Your task to perform on an android device: open a new tab in the chrome app Image 0: 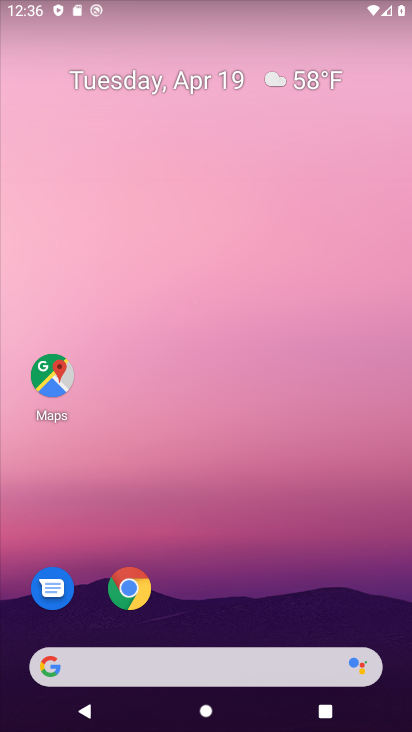
Step 0: drag from (208, 610) to (162, 164)
Your task to perform on an android device: open a new tab in the chrome app Image 1: 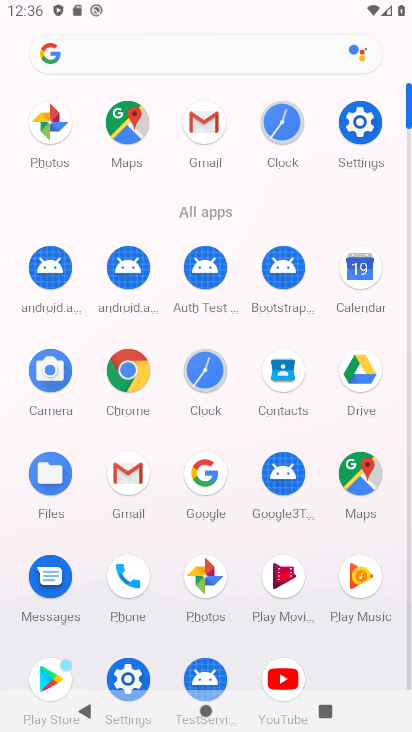
Step 1: click (124, 372)
Your task to perform on an android device: open a new tab in the chrome app Image 2: 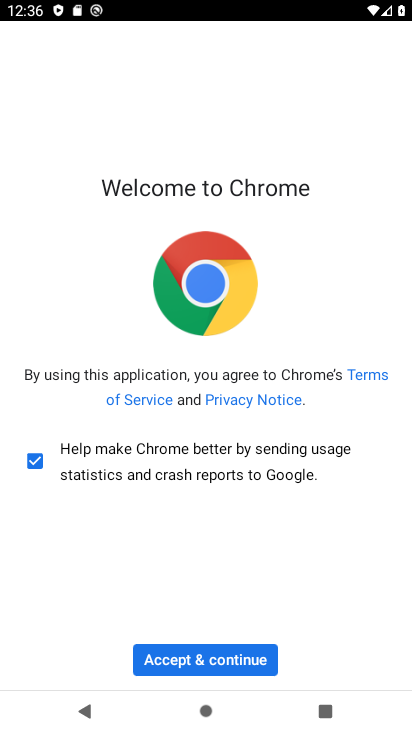
Step 2: click (196, 668)
Your task to perform on an android device: open a new tab in the chrome app Image 3: 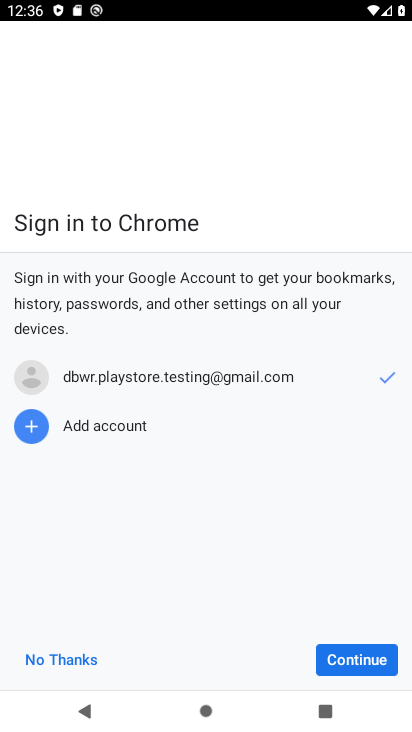
Step 3: click (348, 653)
Your task to perform on an android device: open a new tab in the chrome app Image 4: 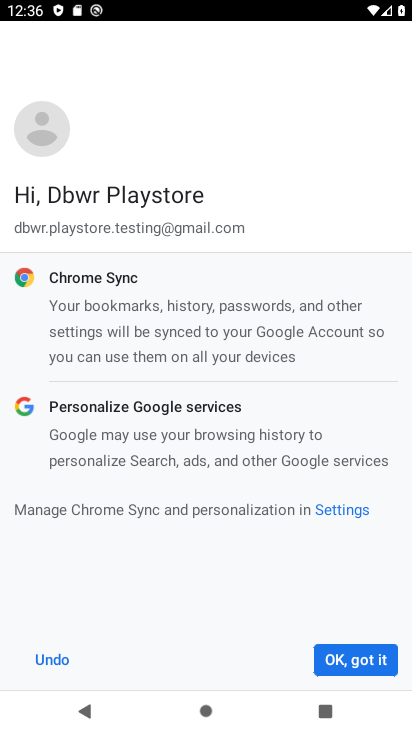
Step 4: click (328, 649)
Your task to perform on an android device: open a new tab in the chrome app Image 5: 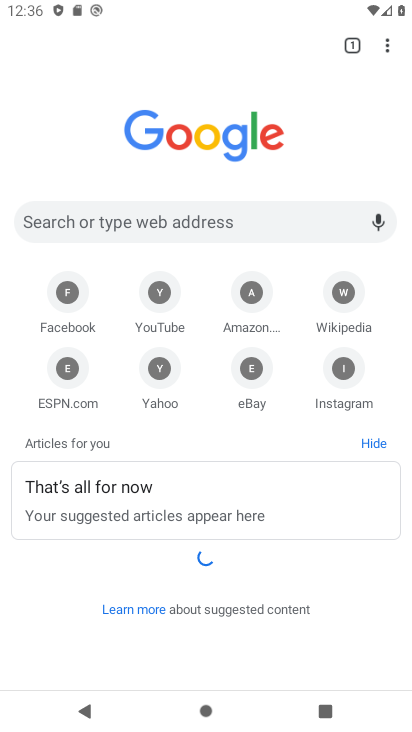
Step 5: click (355, 45)
Your task to perform on an android device: open a new tab in the chrome app Image 6: 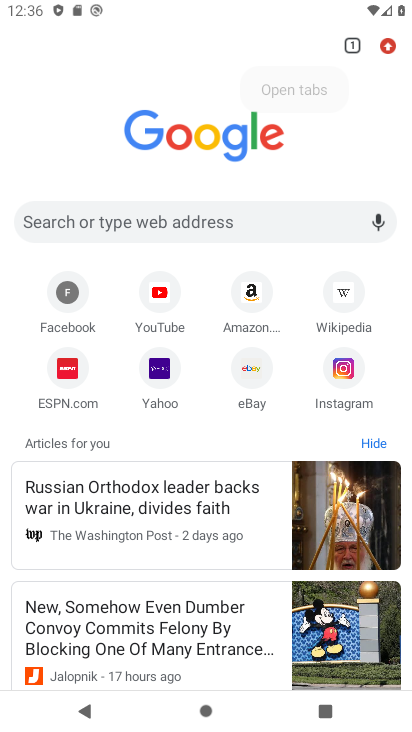
Step 6: click (299, 90)
Your task to perform on an android device: open a new tab in the chrome app Image 7: 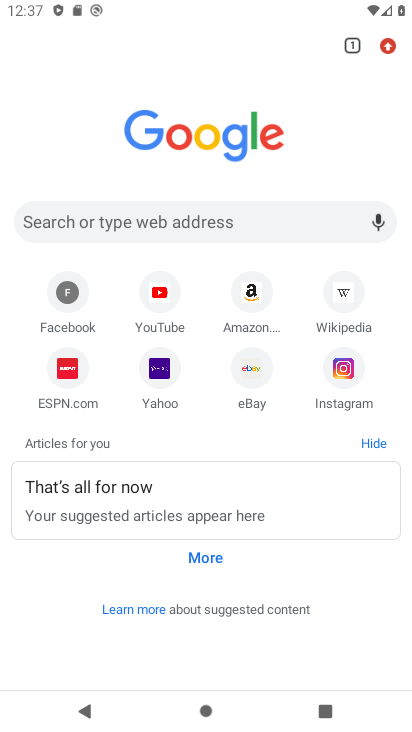
Step 7: click (351, 46)
Your task to perform on an android device: open a new tab in the chrome app Image 8: 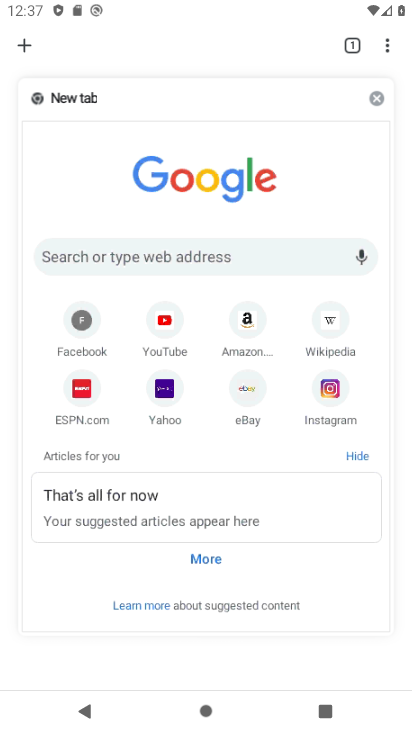
Step 8: task complete